Your task to perform on an android device: install app "Spotify" Image 0: 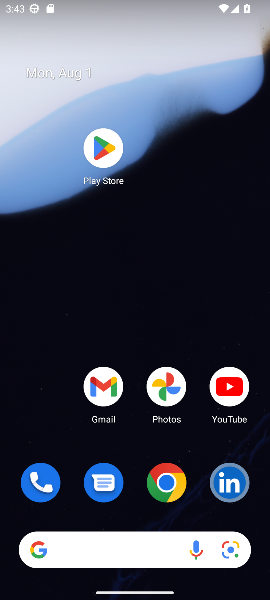
Step 0: press home button
Your task to perform on an android device: install app "Spotify" Image 1: 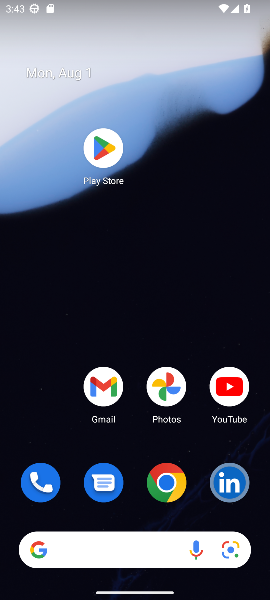
Step 1: click (114, 144)
Your task to perform on an android device: install app "Spotify" Image 2: 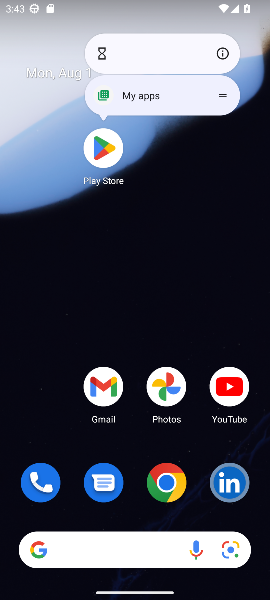
Step 2: click (97, 152)
Your task to perform on an android device: install app "Spotify" Image 3: 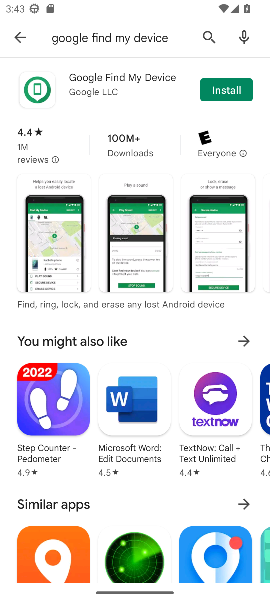
Step 3: click (202, 34)
Your task to perform on an android device: install app "Spotify" Image 4: 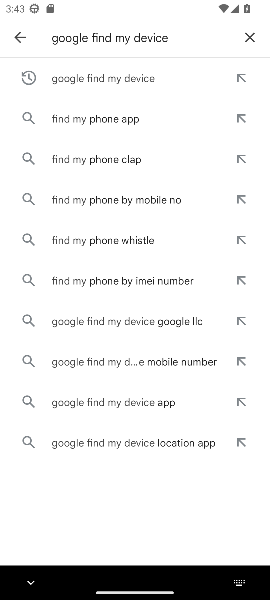
Step 4: click (244, 29)
Your task to perform on an android device: install app "Spotify" Image 5: 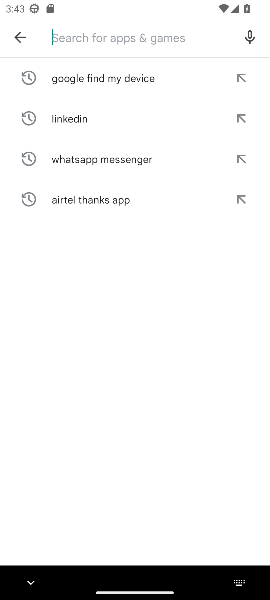
Step 5: type "Spotify"
Your task to perform on an android device: install app "Spotify" Image 6: 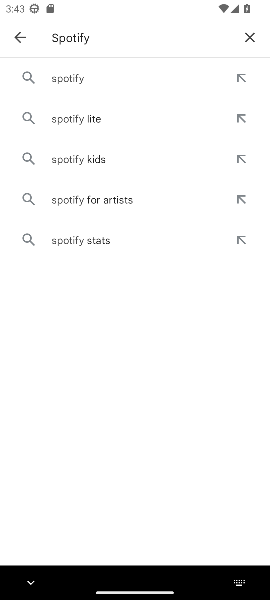
Step 6: click (75, 80)
Your task to perform on an android device: install app "Spotify" Image 7: 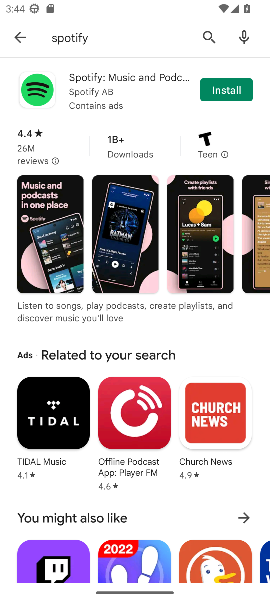
Step 7: click (226, 93)
Your task to perform on an android device: install app "Spotify" Image 8: 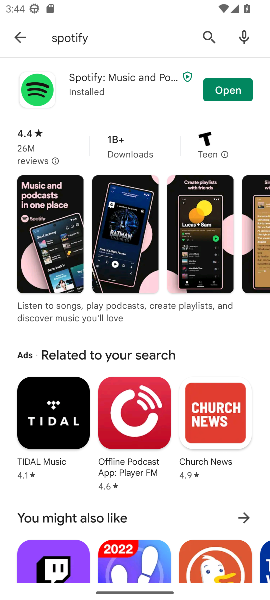
Step 8: task complete